Your task to perform on an android device: turn off picture-in-picture Image 0: 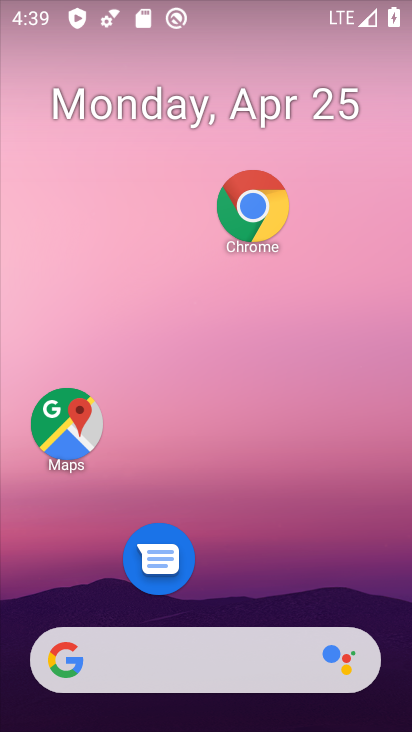
Step 0: click (250, 208)
Your task to perform on an android device: turn off picture-in-picture Image 1: 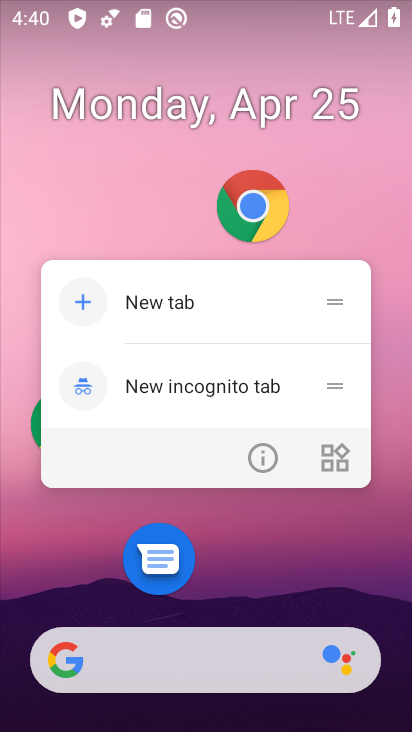
Step 1: click (265, 446)
Your task to perform on an android device: turn off picture-in-picture Image 2: 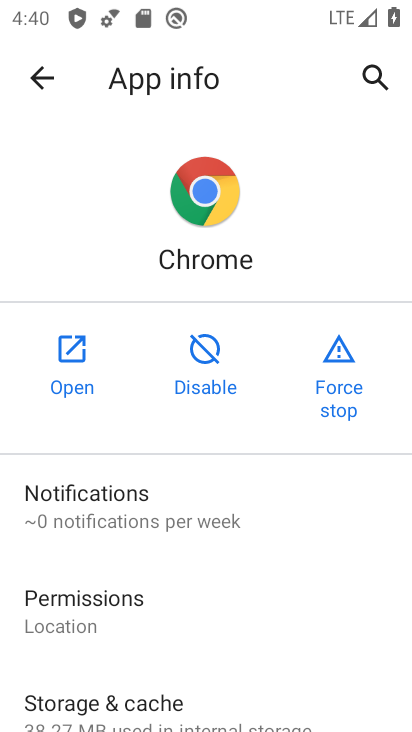
Step 2: drag from (167, 591) to (220, 440)
Your task to perform on an android device: turn off picture-in-picture Image 3: 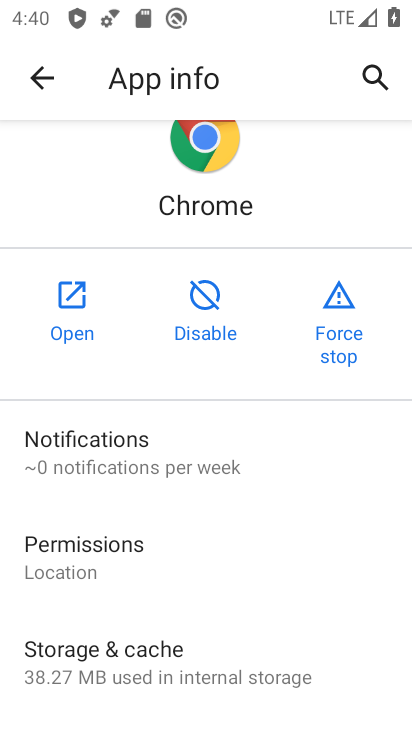
Step 3: drag from (152, 610) to (209, 453)
Your task to perform on an android device: turn off picture-in-picture Image 4: 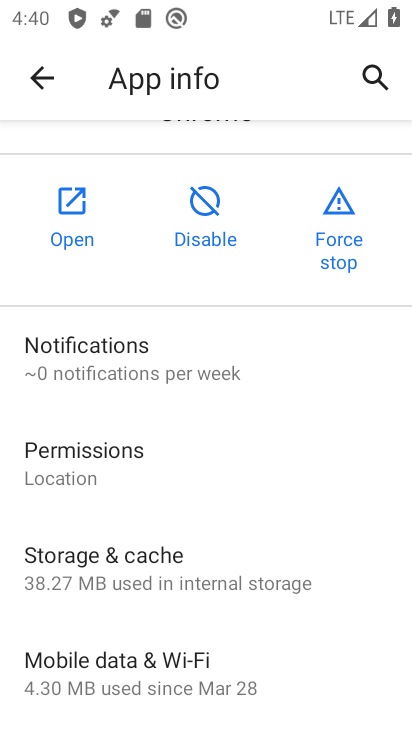
Step 4: drag from (166, 597) to (205, 466)
Your task to perform on an android device: turn off picture-in-picture Image 5: 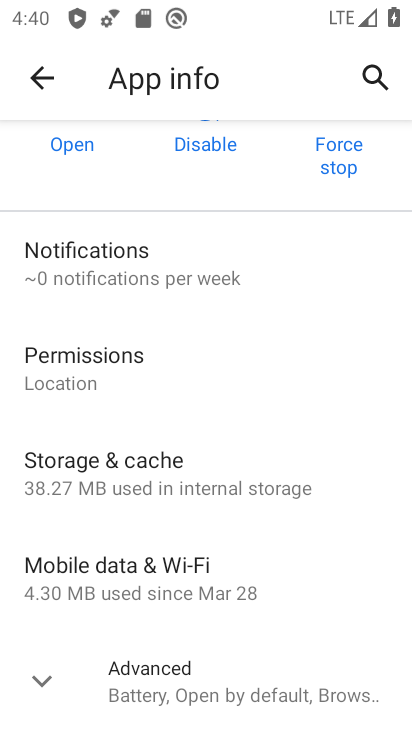
Step 5: click (142, 671)
Your task to perform on an android device: turn off picture-in-picture Image 6: 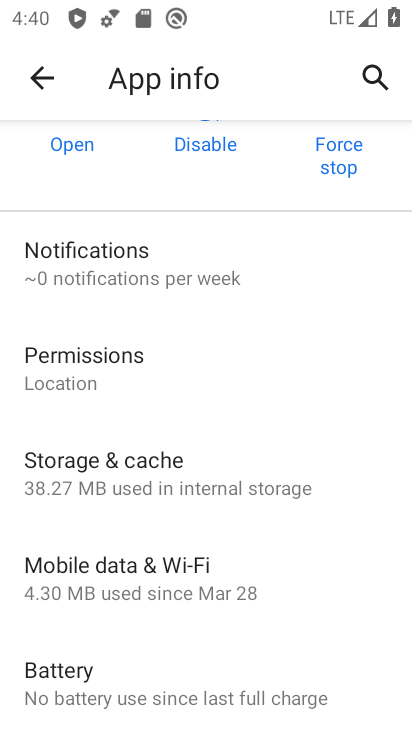
Step 6: drag from (140, 646) to (196, 480)
Your task to perform on an android device: turn off picture-in-picture Image 7: 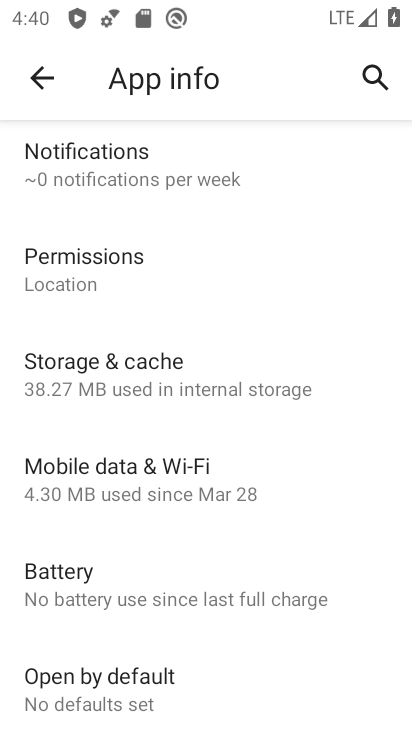
Step 7: drag from (109, 639) to (201, 521)
Your task to perform on an android device: turn off picture-in-picture Image 8: 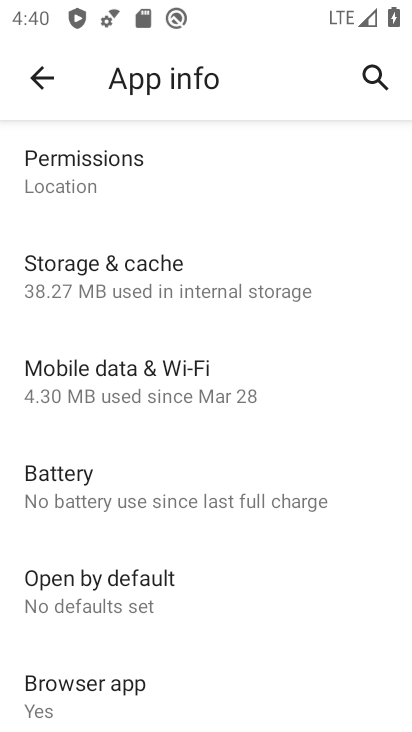
Step 8: drag from (152, 640) to (246, 466)
Your task to perform on an android device: turn off picture-in-picture Image 9: 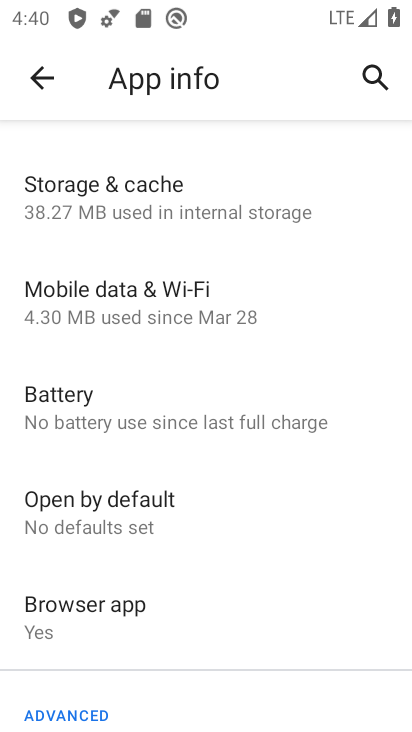
Step 9: drag from (161, 639) to (261, 491)
Your task to perform on an android device: turn off picture-in-picture Image 10: 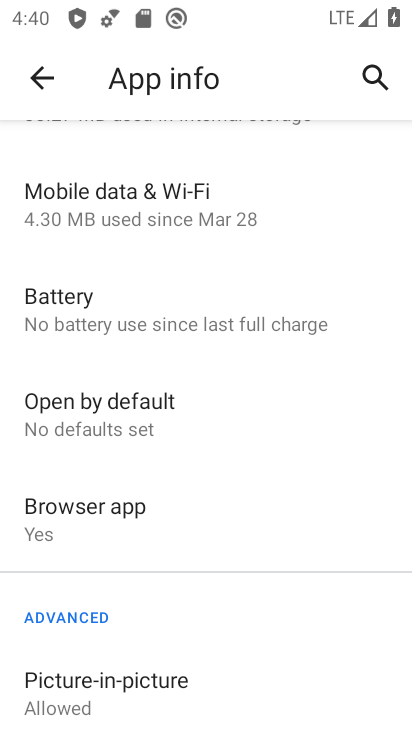
Step 10: drag from (147, 638) to (235, 485)
Your task to perform on an android device: turn off picture-in-picture Image 11: 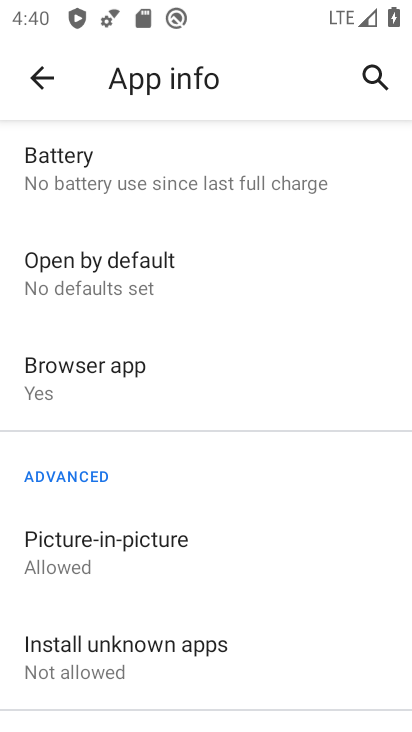
Step 11: click (115, 531)
Your task to perform on an android device: turn off picture-in-picture Image 12: 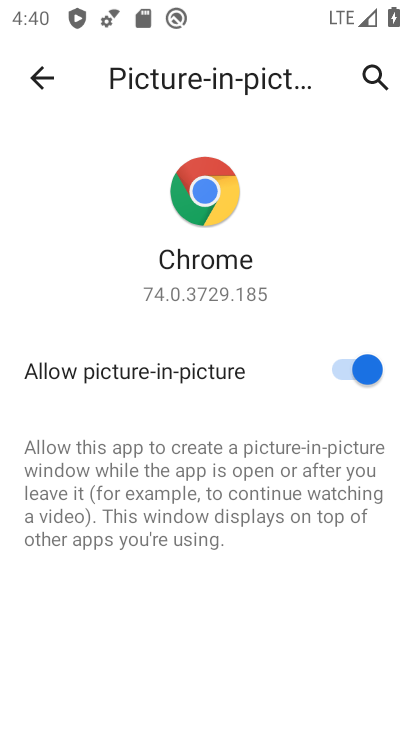
Step 12: click (373, 378)
Your task to perform on an android device: turn off picture-in-picture Image 13: 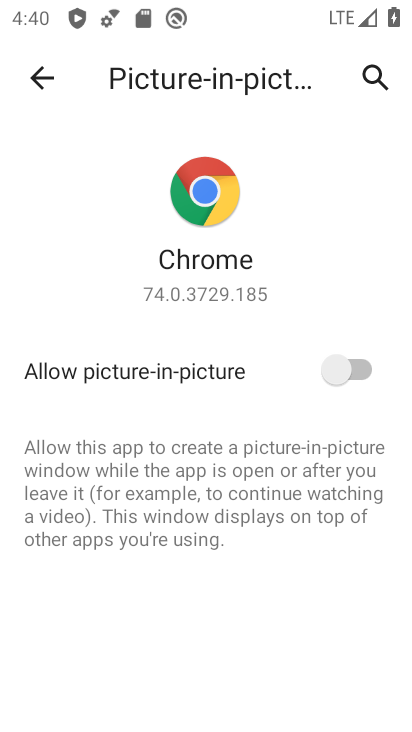
Step 13: task complete